Your task to perform on an android device: open sync settings in chrome Image 0: 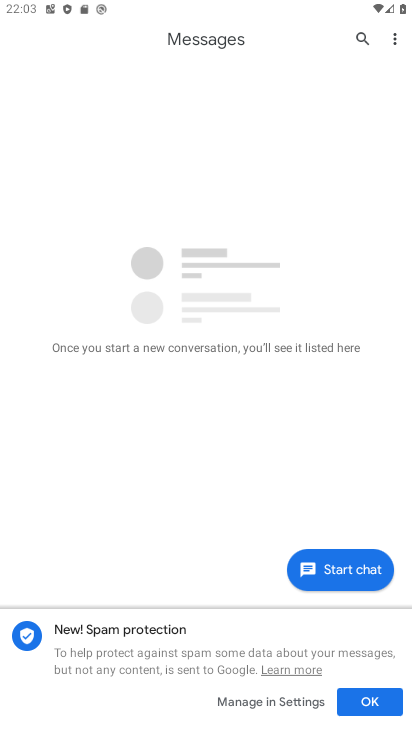
Step 0: press home button
Your task to perform on an android device: open sync settings in chrome Image 1: 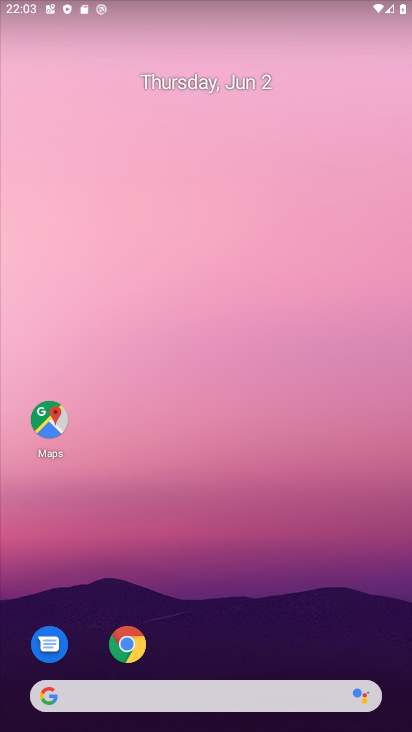
Step 1: click (128, 655)
Your task to perform on an android device: open sync settings in chrome Image 2: 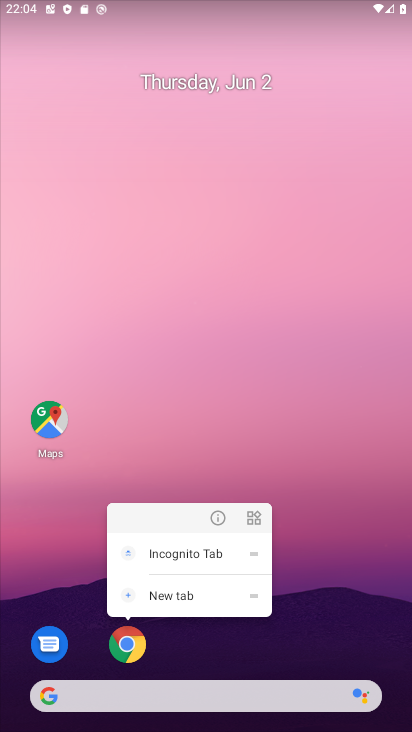
Step 2: click (218, 413)
Your task to perform on an android device: open sync settings in chrome Image 3: 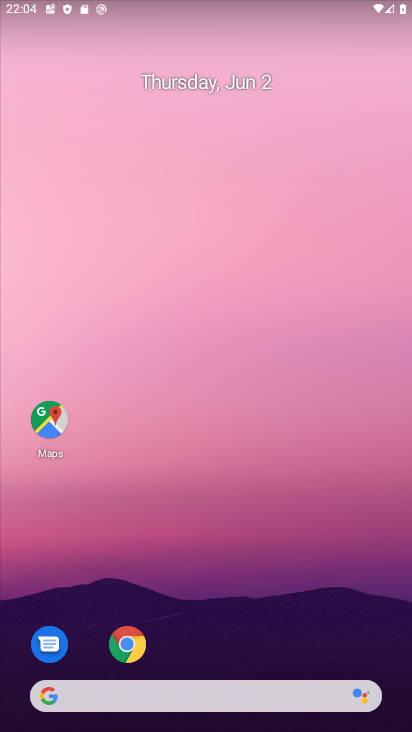
Step 3: click (130, 647)
Your task to perform on an android device: open sync settings in chrome Image 4: 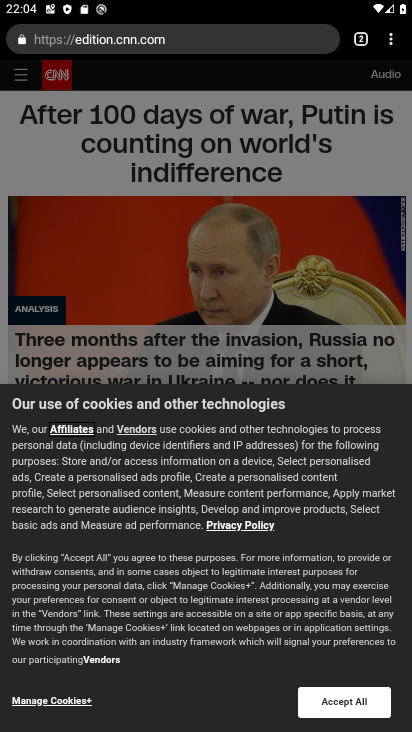
Step 4: click (382, 43)
Your task to perform on an android device: open sync settings in chrome Image 5: 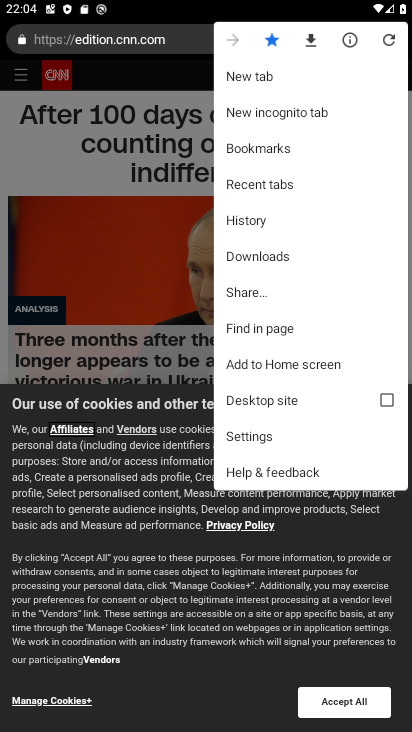
Step 5: click (265, 434)
Your task to perform on an android device: open sync settings in chrome Image 6: 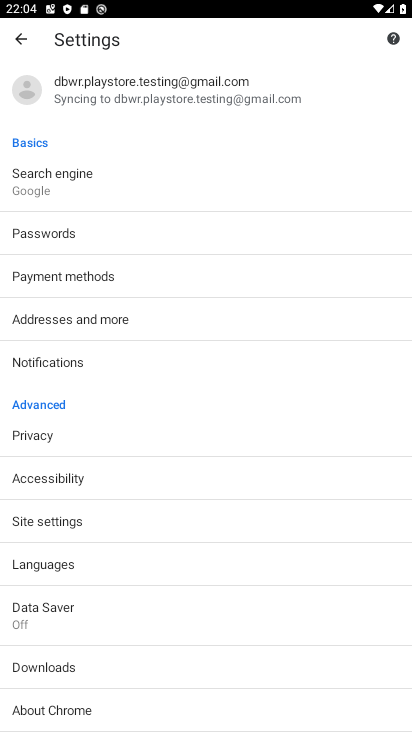
Step 6: click (169, 93)
Your task to perform on an android device: open sync settings in chrome Image 7: 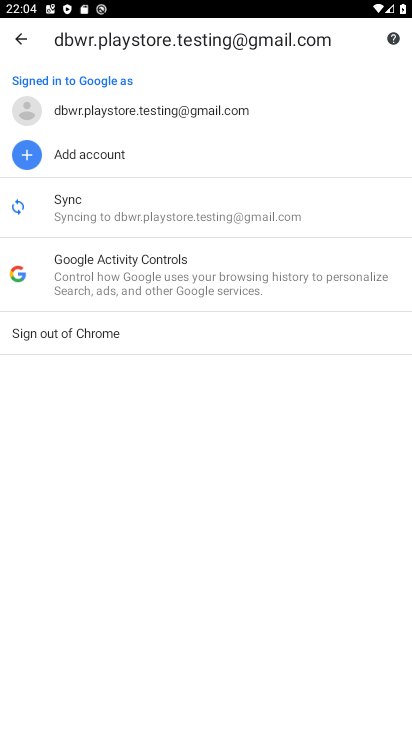
Step 7: click (84, 205)
Your task to perform on an android device: open sync settings in chrome Image 8: 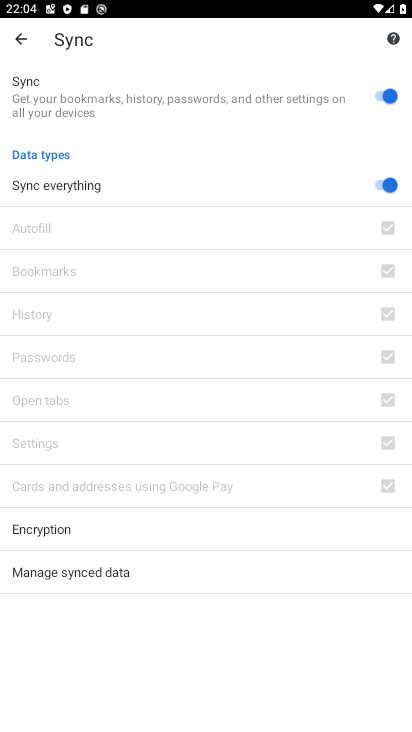
Step 8: task complete